Your task to perform on an android device: Open the map Image 0: 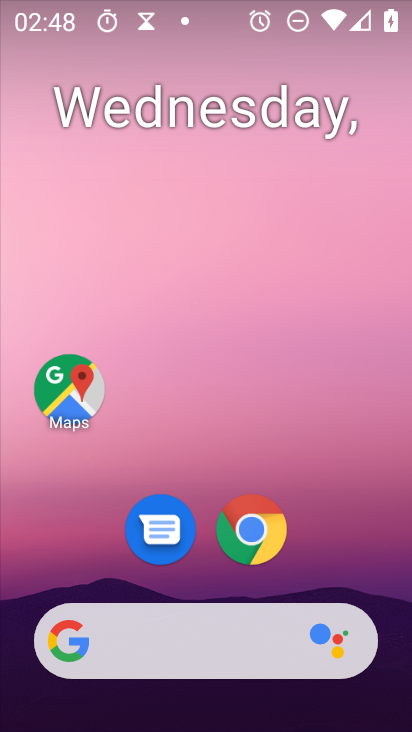
Step 0: drag from (205, 612) to (207, 13)
Your task to perform on an android device: Open the map Image 1: 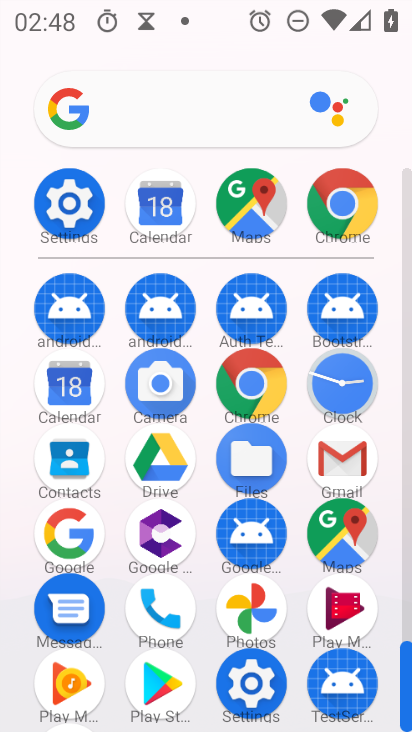
Step 1: click (330, 520)
Your task to perform on an android device: Open the map Image 2: 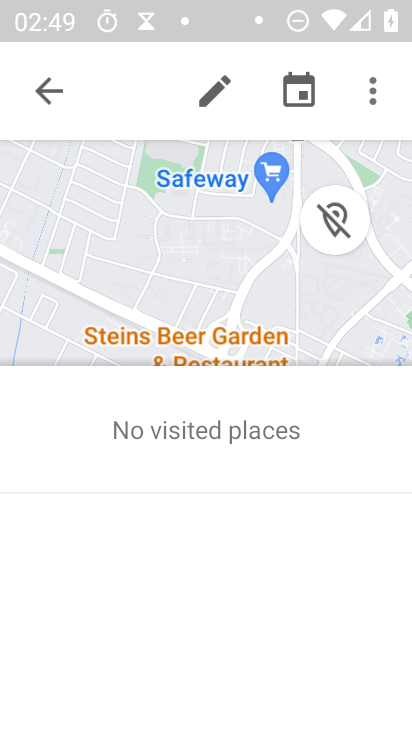
Step 2: task complete